Your task to perform on an android device: Do I have any events today? Image 0: 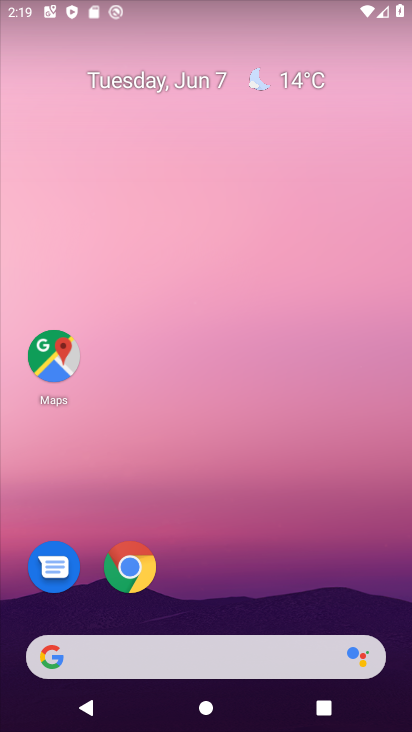
Step 0: drag from (208, 585) to (222, 171)
Your task to perform on an android device: Do I have any events today? Image 1: 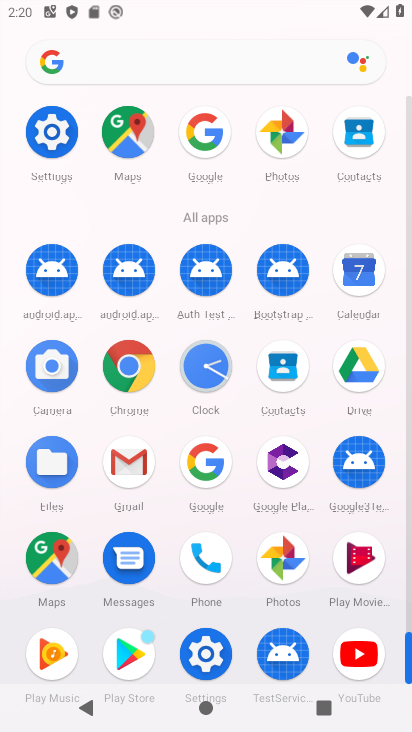
Step 1: click (352, 290)
Your task to perform on an android device: Do I have any events today? Image 2: 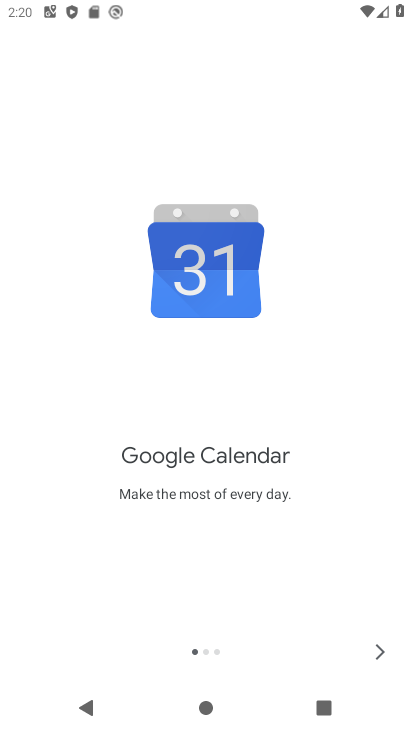
Step 2: click (374, 643)
Your task to perform on an android device: Do I have any events today? Image 3: 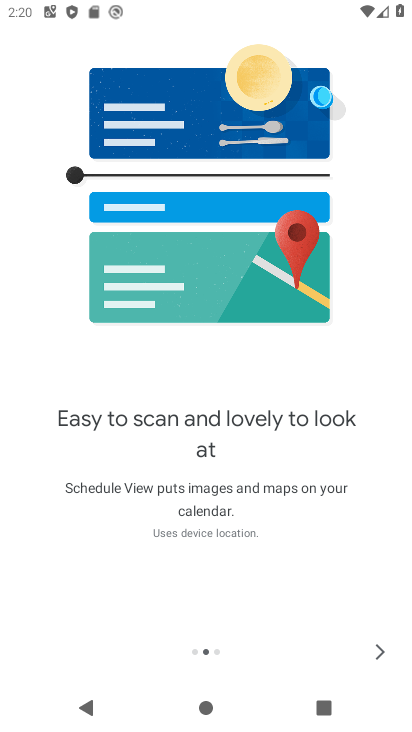
Step 3: click (374, 643)
Your task to perform on an android device: Do I have any events today? Image 4: 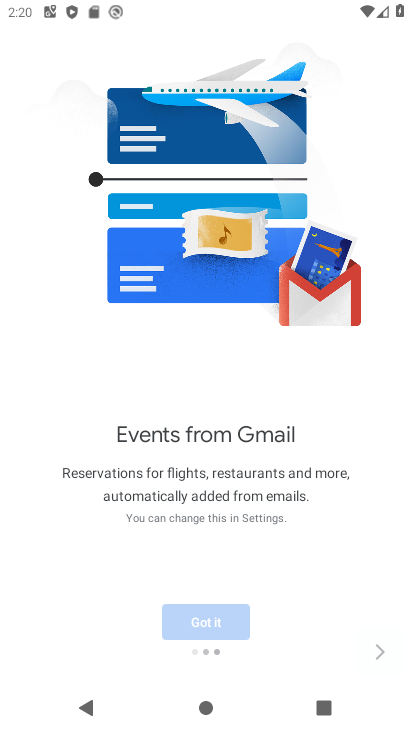
Step 4: click (370, 645)
Your task to perform on an android device: Do I have any events today? Image 5: 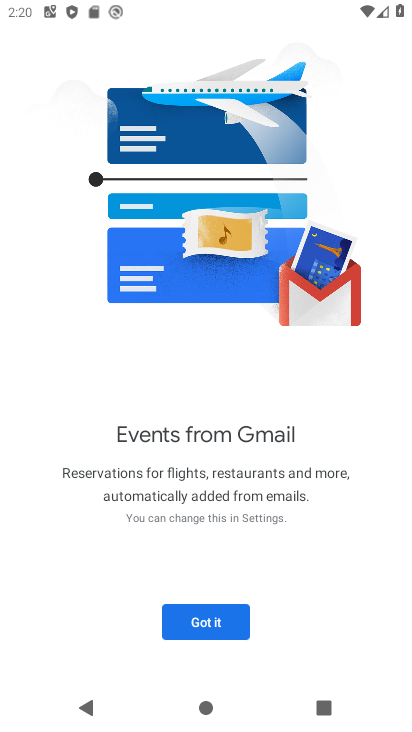
Step 5: click (170, 603)
Your task to perform on an android device: Do I have any events today? Image 6: 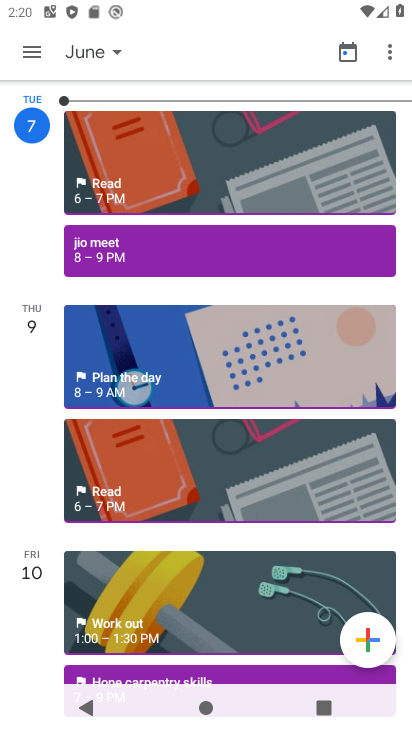
Step 6: click (118, 49)
Your task to perform on an android device: Do I have any events today? Image 7: 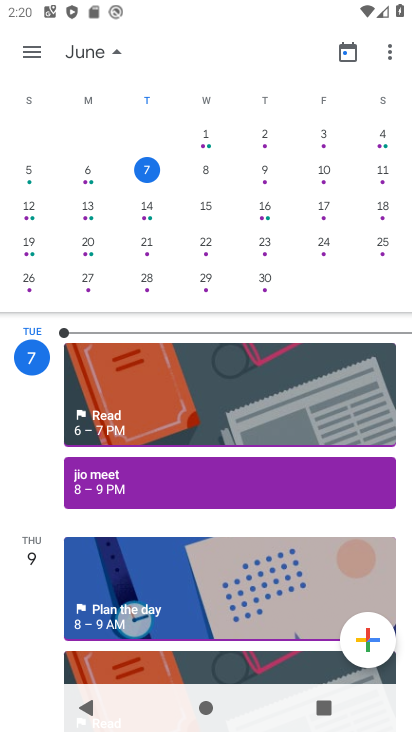
Step 7: click (82, 176)
Your task to perform on an android device: Do I have any events today? Image 8: 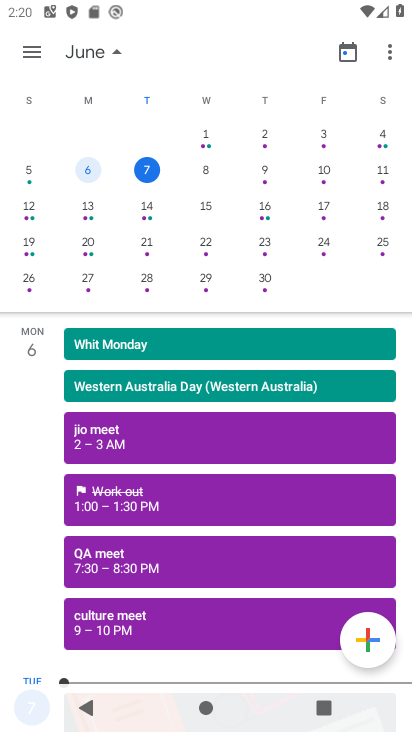
Step 8: click (143, 170)
Your task to perform on an android device: Do I have any events today? Image 9: 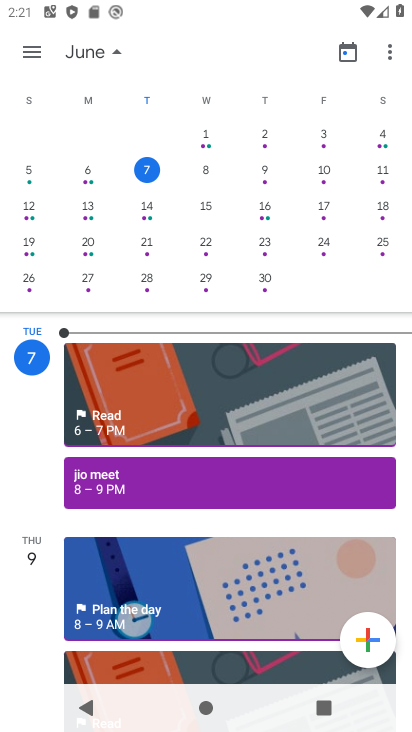
Step 9: task complete